Your task to perform on an android device: Open the calendar app, open the side menu, and click the "Day" option Image 0: 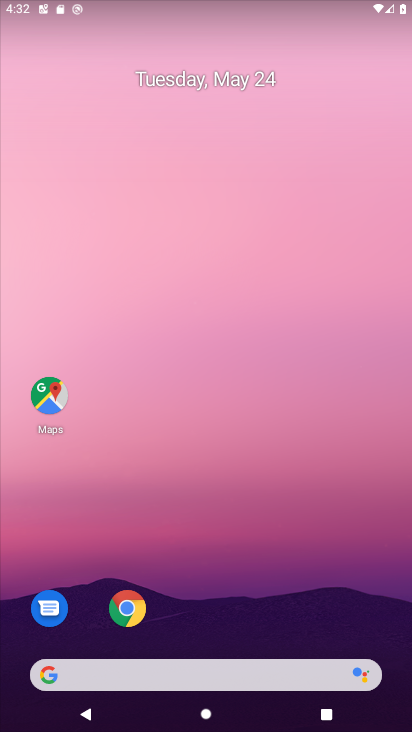
Step 0: drag from (184, 653) to (146, 201)
Your task to perform on an android device: Open the calendar app, open the side menu, and click the "Day" option Image 1: 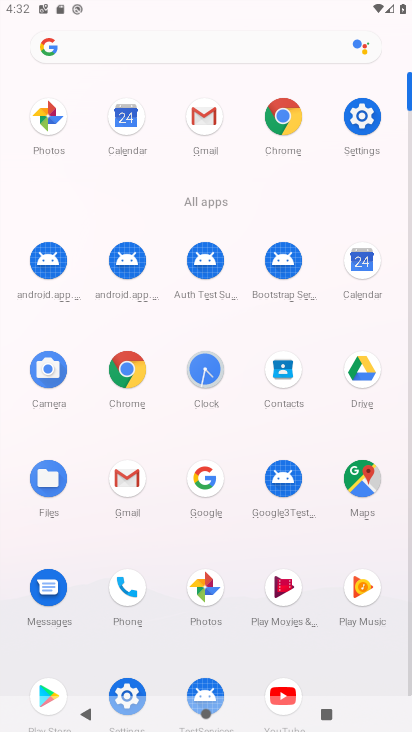
Step 1: click (345, 262)
Your task to perform on an android device: Open the calendar app, open the side menu, and click the "Day" option Image 2: 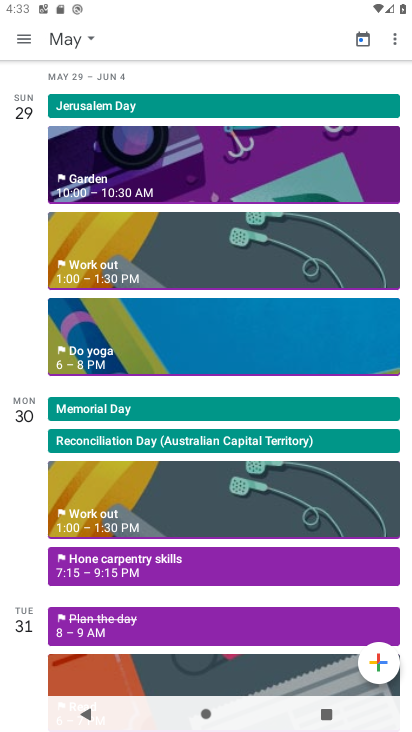
Step 2: click (25, 46)
Your task to perform on an android device: Open the calendar app, open the side menu, and click the "Day" option Image 3: 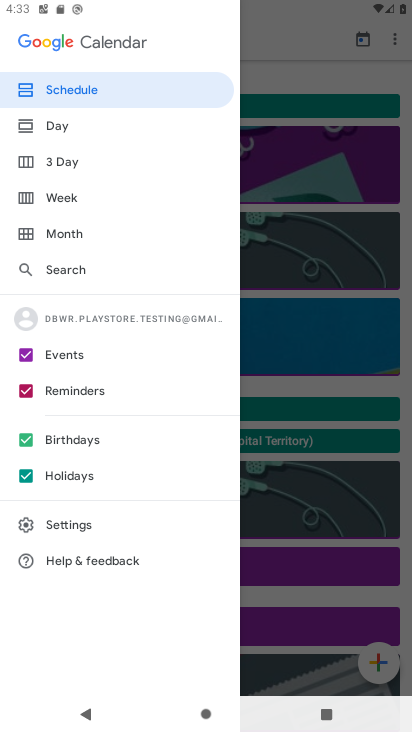
Step 3: click (344, 69)
Your task to perform on an android device: Open the calendar app, open the side menu, and click the "Day" option Image 4: 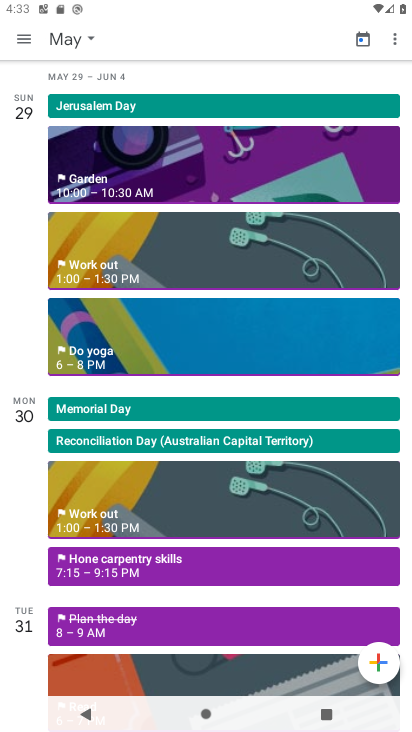
Step 4: click (19, 34)
Your task to perform on an android device: Open the calendar app, open the side menu, and click the "Day" option Image 5: 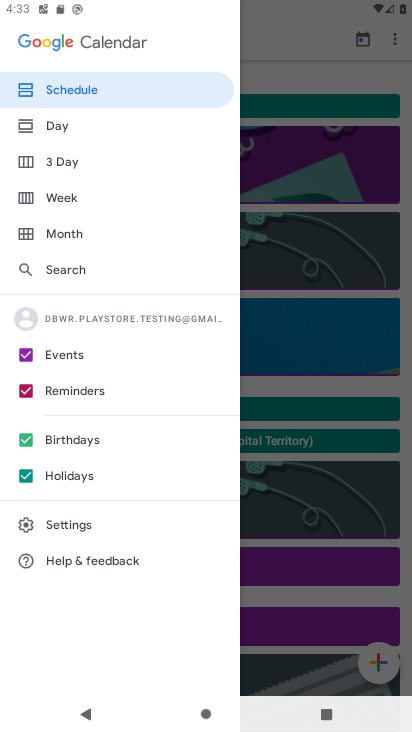
Step 5: click (49, 130)
Your task to perform on an android device: Open the calendar app, open the side menu, and click the "Day" option Image 6: 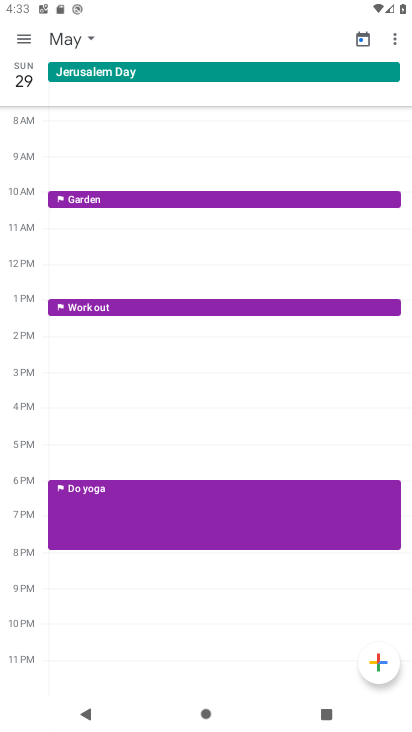
Step 6: task complete